Your task to perform on an android device: Go to Google maps Image 0: 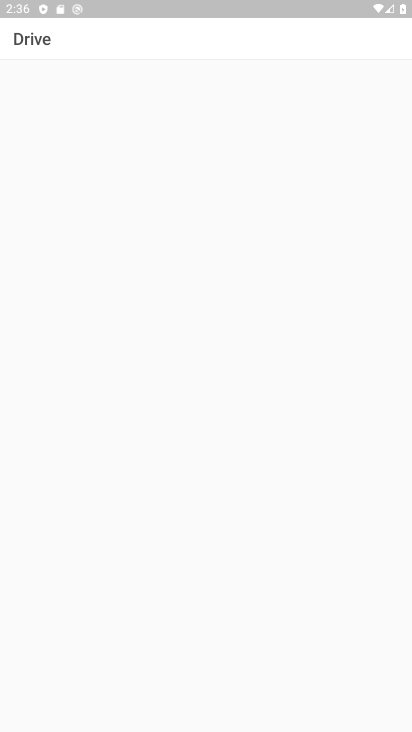
Step 0: press home button
Your task to perform on an android device: Go to Google maps Image 1: 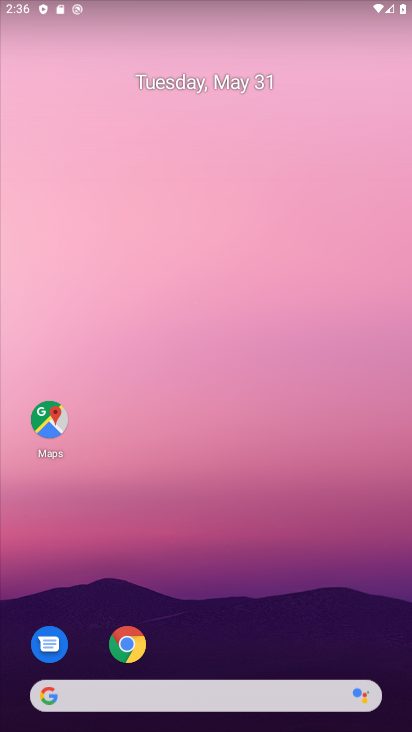
Step 1: click (54, 445)
Your task to perform on an android device: Go to Google maps Image 2: 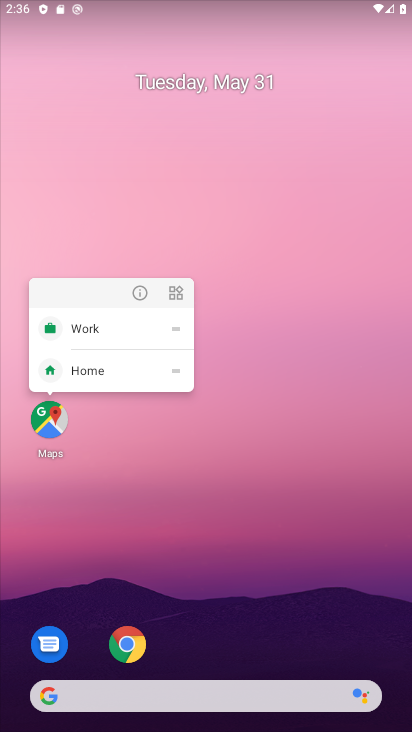
Step 2: click (47, 433)
Your task to perform on an android device: Go to Google maps Image 3: 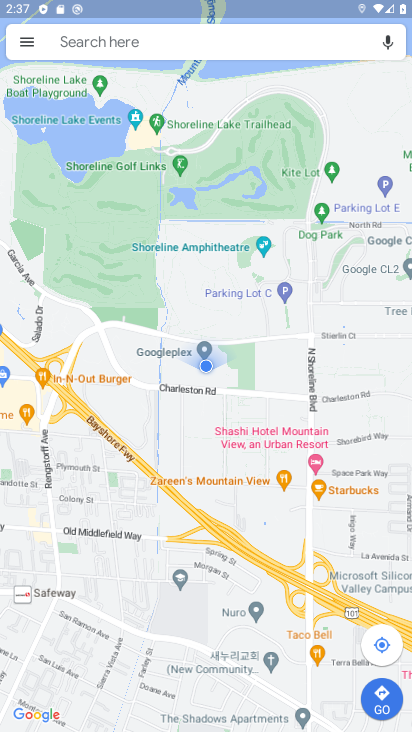
Step 3: task complete